Your task to perform on an android device: open the mobile data screen to see how much data has been used Image 0: 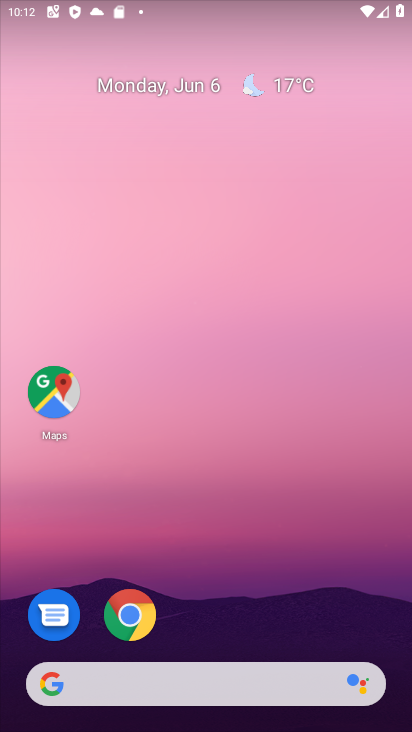
Step 0: drag from (240, 500) to (312, 62)
Your task to perform on an android device: open the mobile data screen to see how much data has been used Image 1: 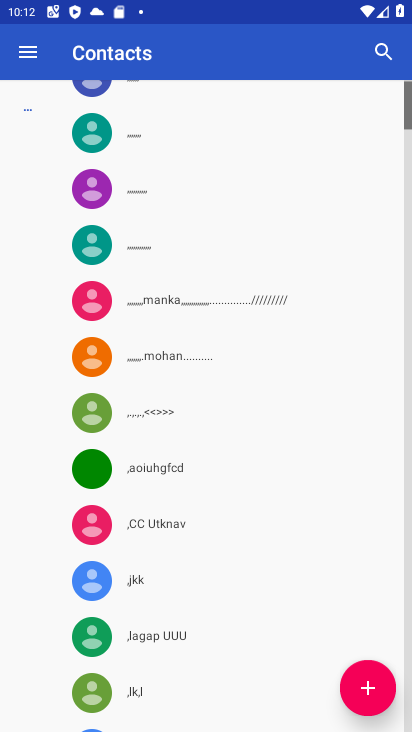
Step 1: press back button
Your task to perform on an android device: open the mobile data screen to see how much data has been used Image 2: 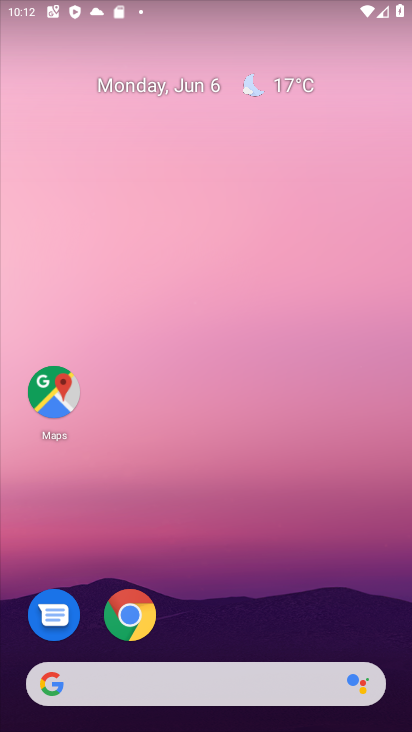
Step 2: drag from (209, 583) to (275, 19)
Your task to perform on an android device: open the mobile data screen to see how much data has been used Image 3: 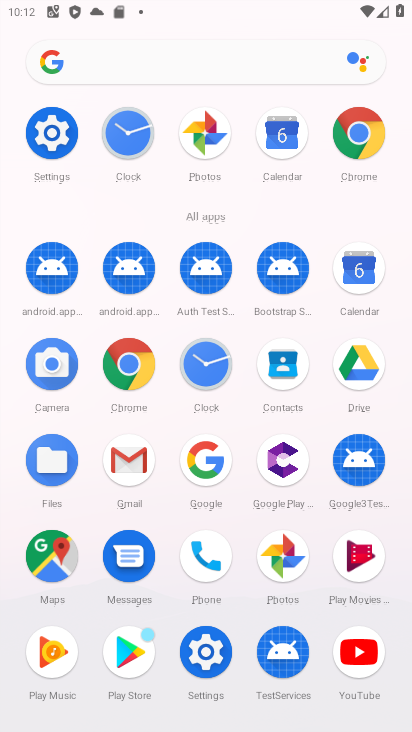
Step 3: click (45, 115)
Your task to perform on an android device: open the mobile data screen to see how much data has been used Image 4: 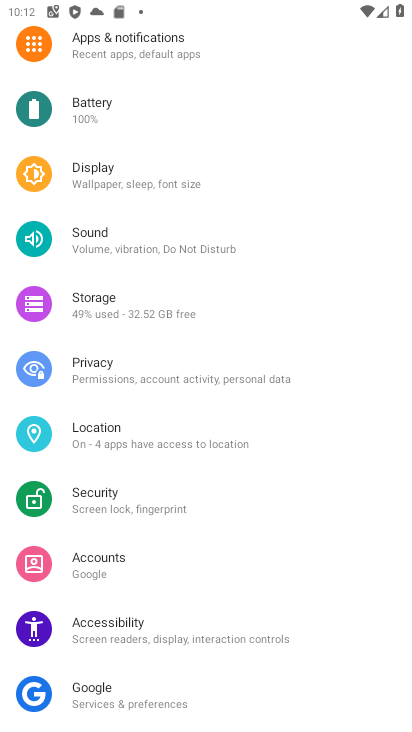
Step 4: drag from (214, 137) to (213, 510)
Your task to perform on an android device: open the mobile data screen to see how much data has been used Image 5: 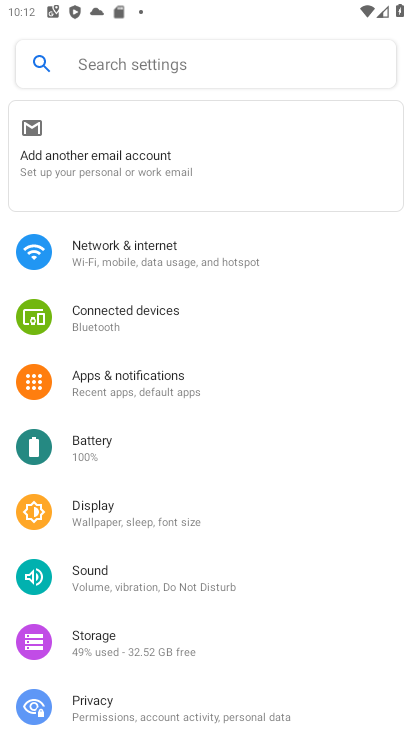
Step 5: click (192, 259)
Your task to perform on an android device: open the mobile data screen to see how much data has been used Image 6: 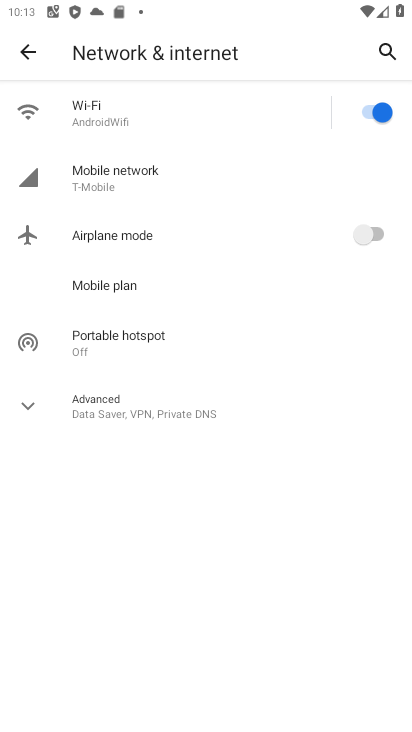
Step 6: click (116, 180)
Your task to perform on an android device: open the mobile data screen to see how much data has been used Image 7: 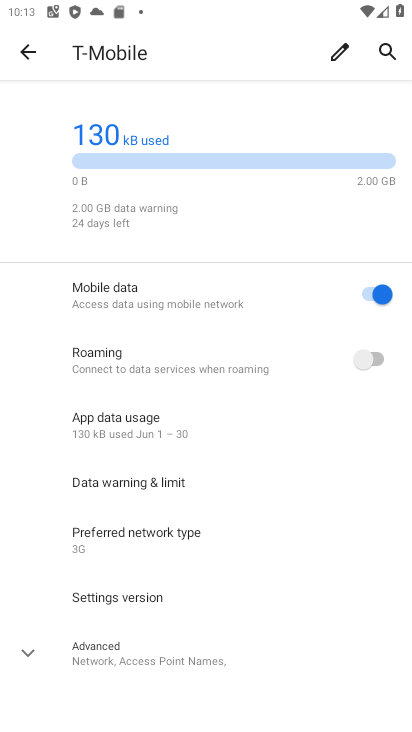
Step 7: click (128, 429)
Your task to perform on an android device: open the mobile data screen to see how much data has been used Image 8: 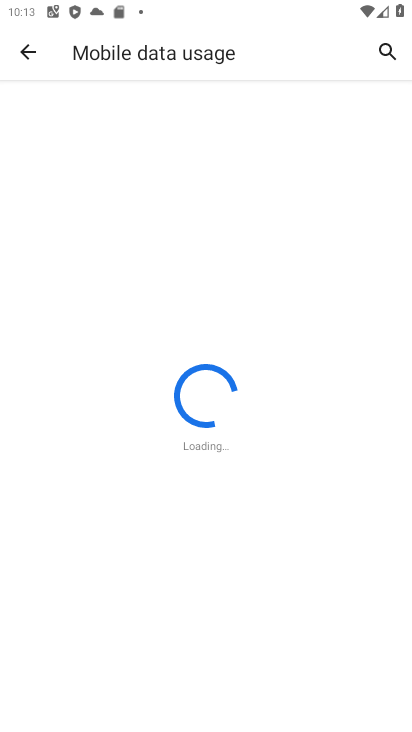
Step 8: task complete